Your task to perform on an android device: open wifi settings Image 0: 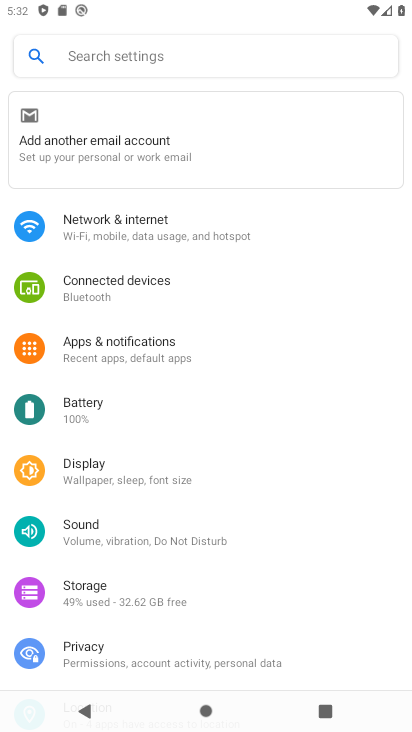
Step 0: click (145, 232)
Your task to perform on an android device: open wifi settings Image 1: 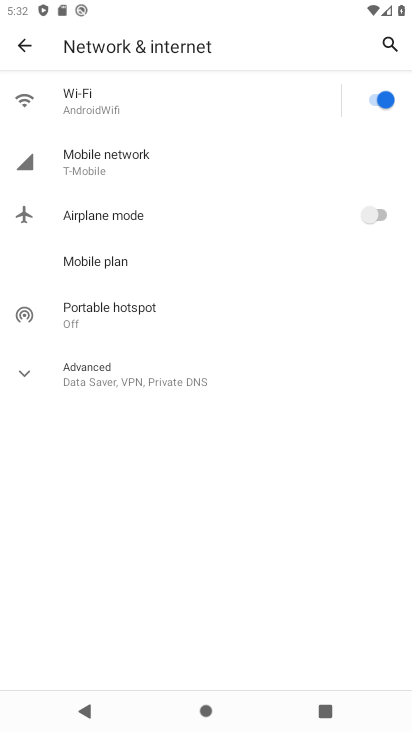
Step 1: click (30, 369)
Your task to perform on an android device: open wifi settings Image 2: 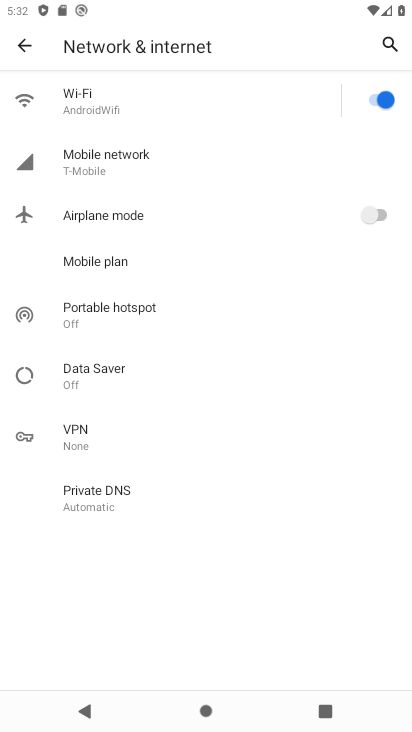
Step 2: click (111, 102)
Your task to perform on an android device: open wifi settings Image 3: 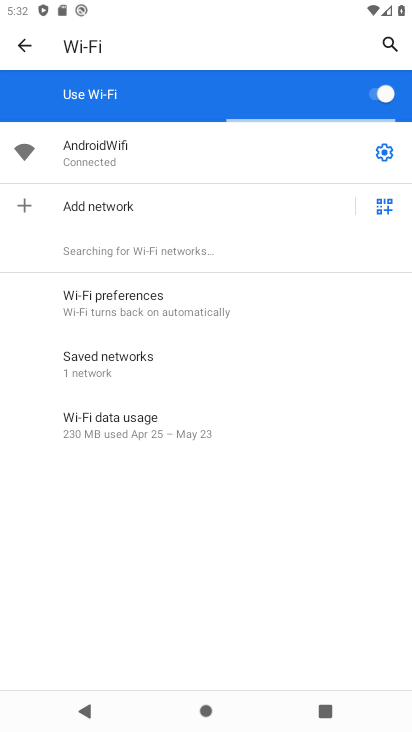
Step 3: task complete